Your task to perform on an android device: Toggle the flashlight Image 0: 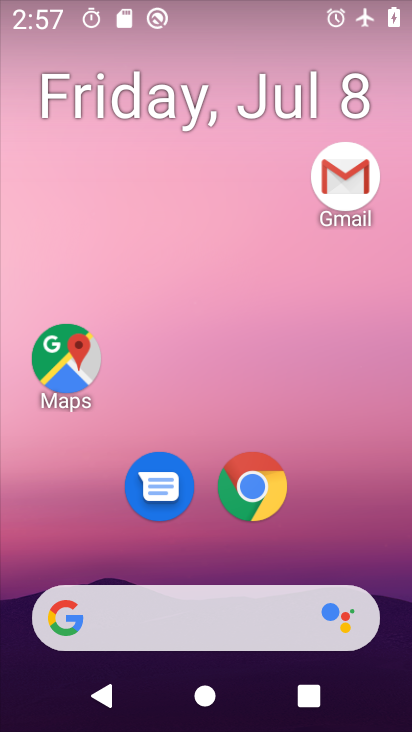
Step 0: drag from (365, 519) to (385, 185)
Your task to perform on an android device: Toggle the flashlight Image 1: 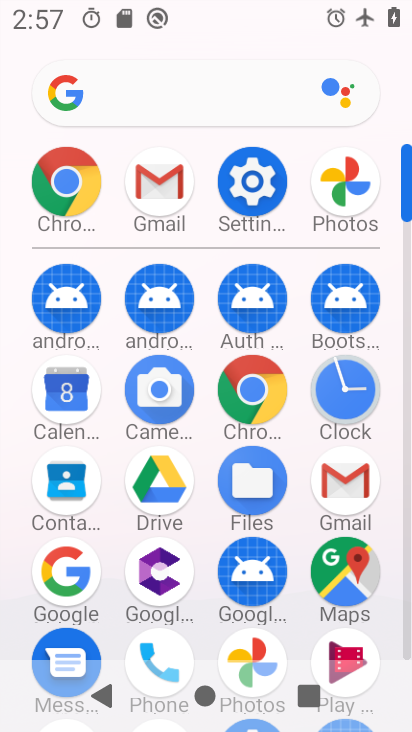
Step 1: press home button
Your task to perform on an android device: Toggle the flashlight Image 2: 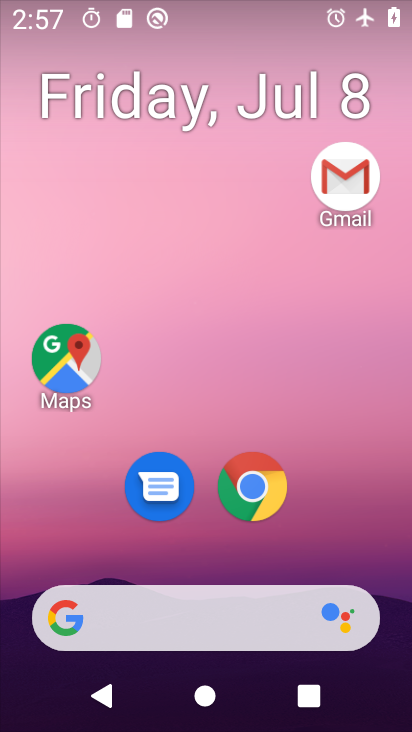
Step 2: drag from (254, 4) to (235, 374)
Your task to perform on an android device: Toggle the flashlight Image 3: 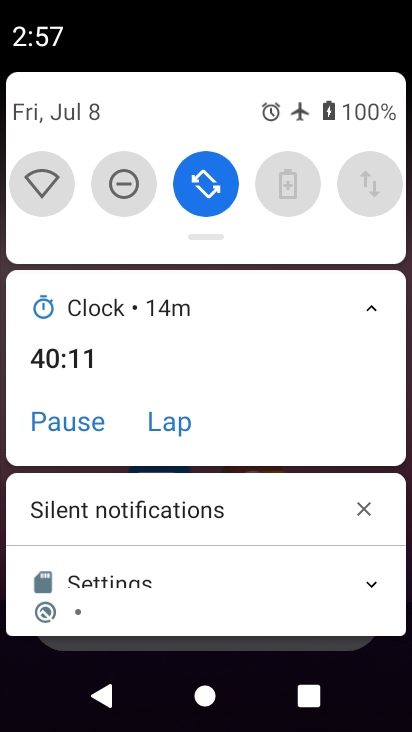
Step 3: drag from (242, 128) to (258, 448)
Your task to perform on an android device: Toggle the flashlight Image 4: 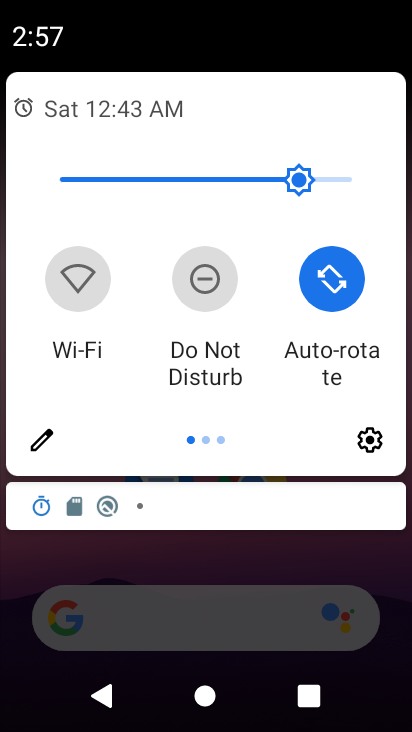
Step 4: click (55, 441)
Your task to perform on an android device: Toggle the flashlight Image 5: 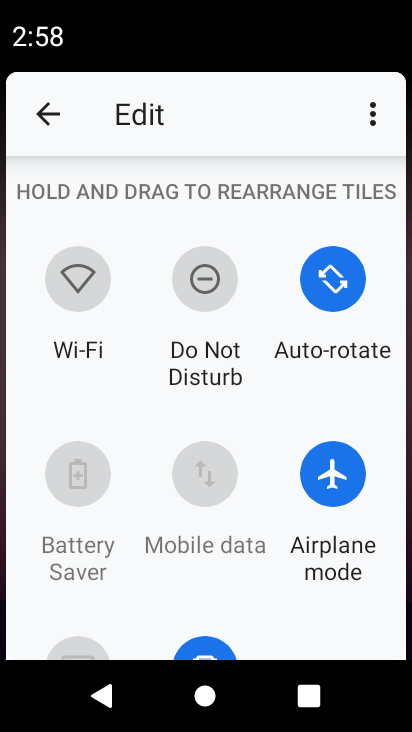
Step 5: task complete